Your task to perform on an android device: See recent photos Image 0: 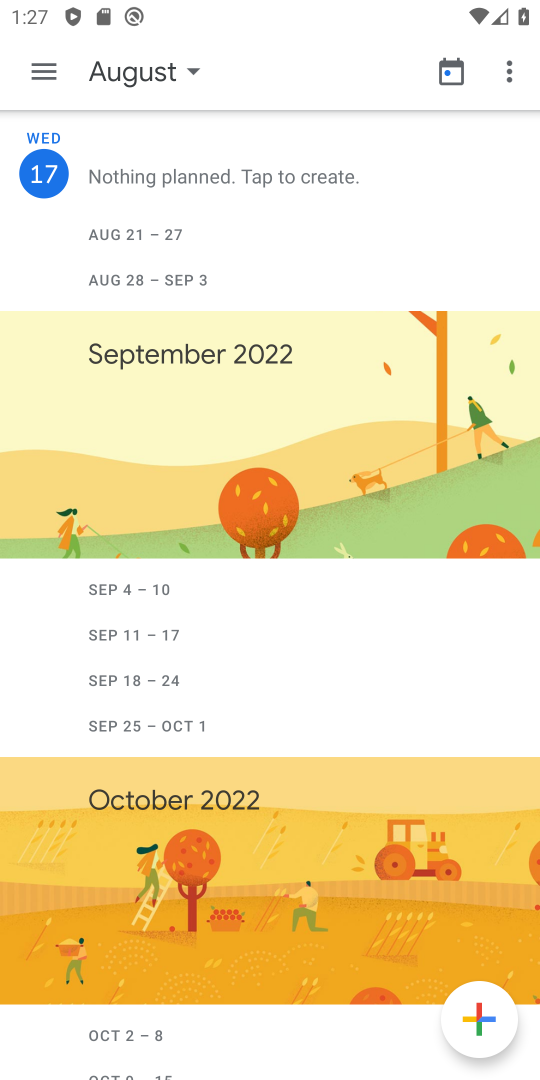
Step 0: press home button
Your task to perform on an android device: See recent photos Image 1: 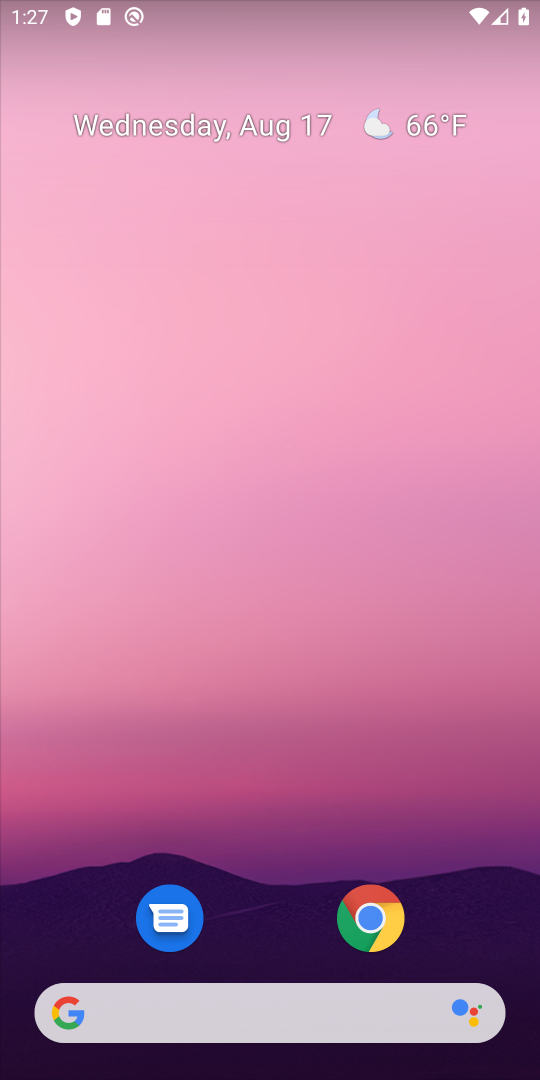
Step 1: drag from (231, 1005) to (323, 291)
Your task to perform on an android device: See recent photos Image 2: 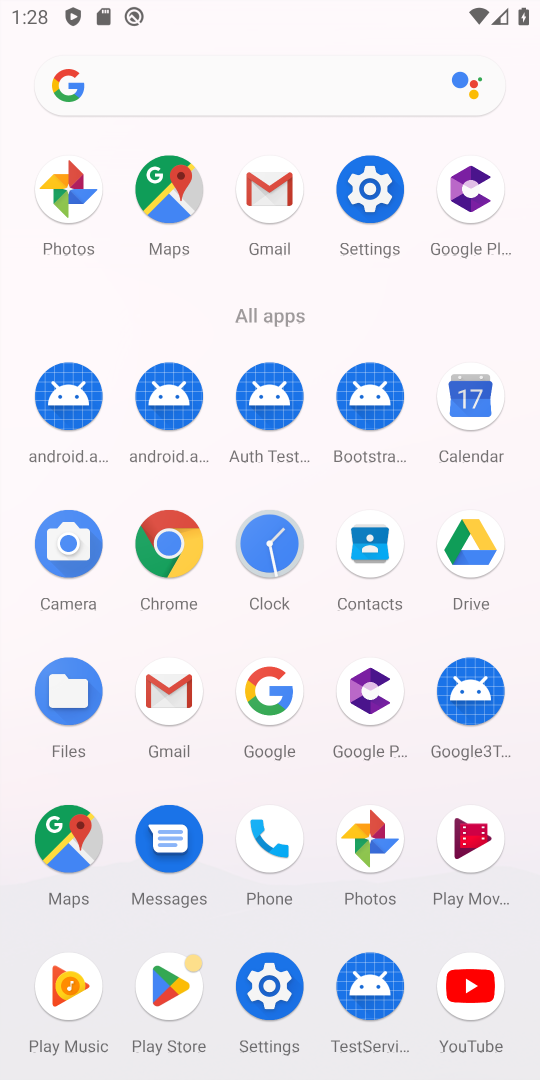
Step 2: click (353, 834)
Your task to perform on an android device: See recent photos Image 3: 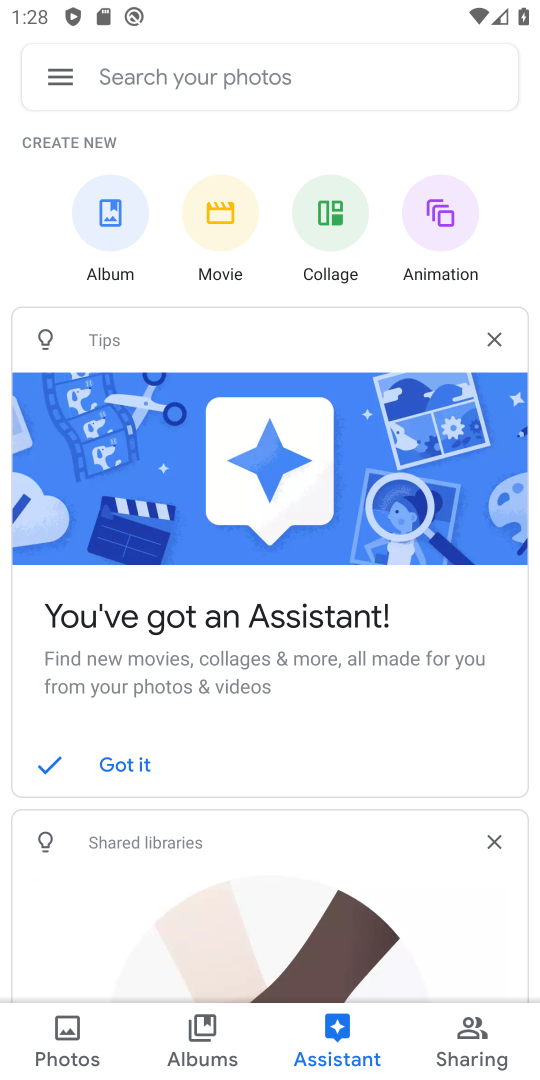
Step 3: click (76, 1025)
Your task to perform on an android device: See recent photos Image 4: 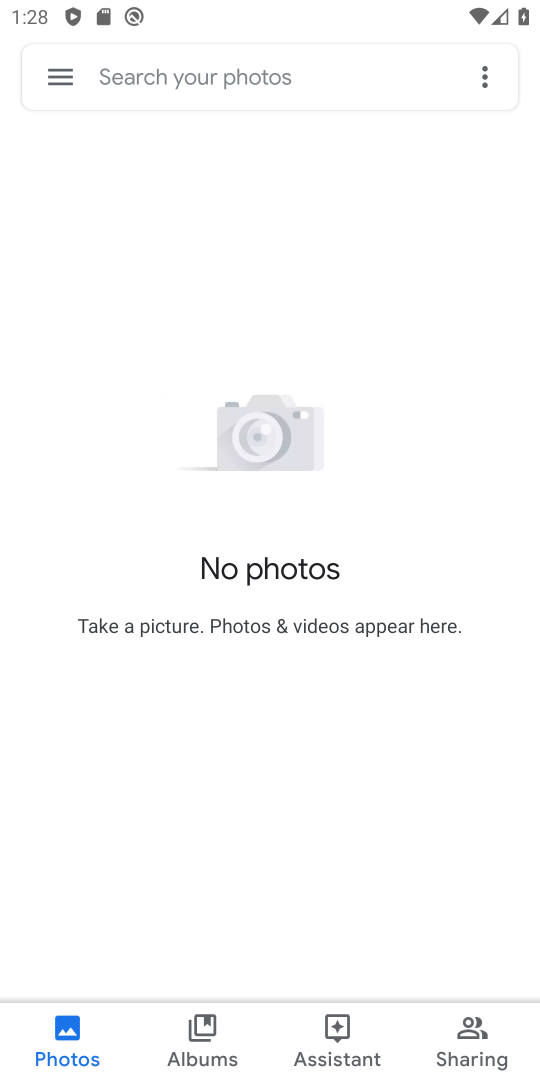
Step 4: task complete